Your task to perform on an android device: Check the news Image 0: 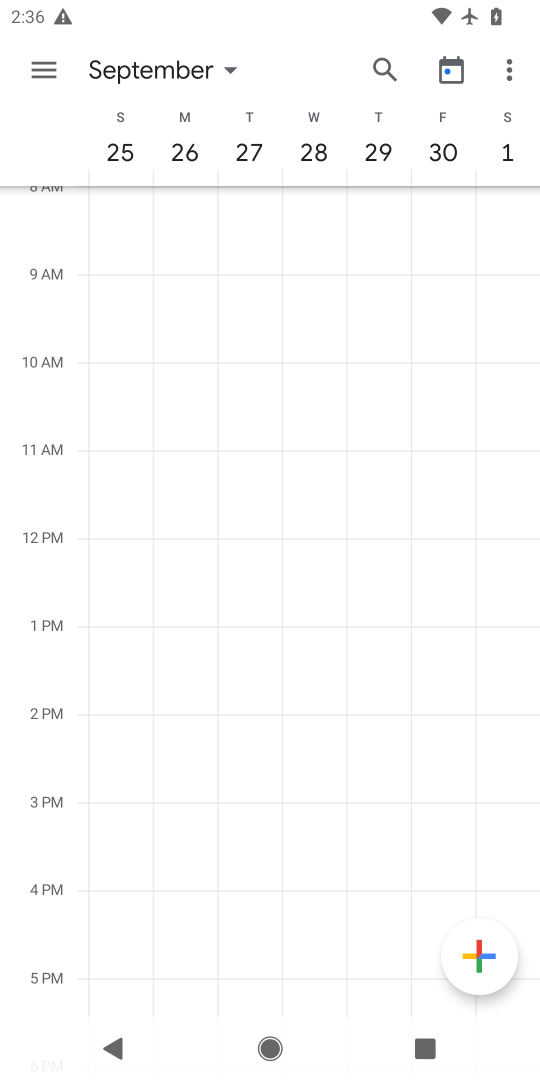
Step 0: press home button
Your task to perform on an android device: Check the news Image 1: 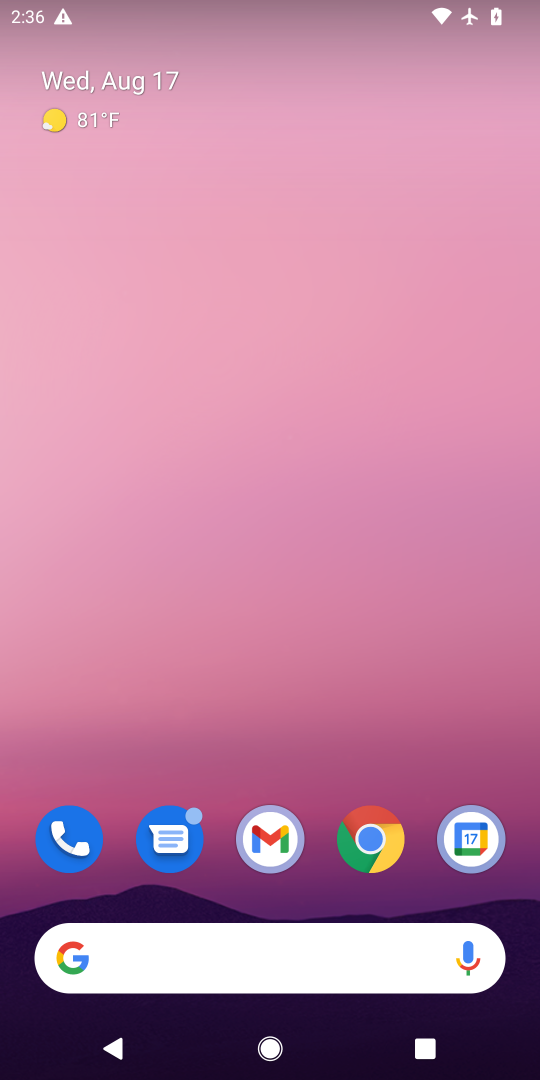
Step 1: task complete